Your task to perform on an android device: make emails show in primary in the gmail app Image 0: 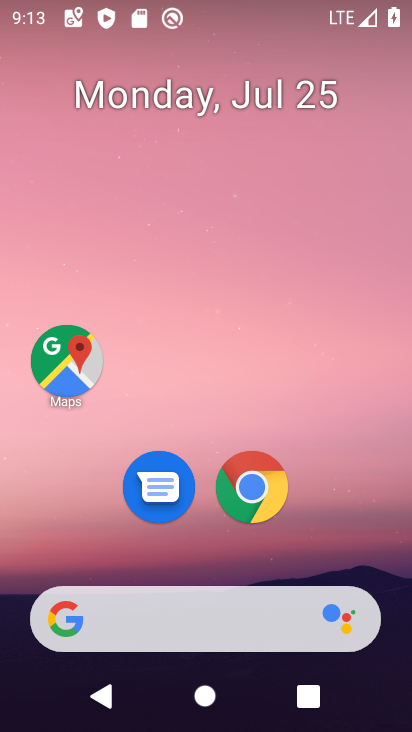
Step 0: drag from (104, 588) to (202, 16)
Your task to perform on an android device: make emails show in primary in the gmail app Image 1: 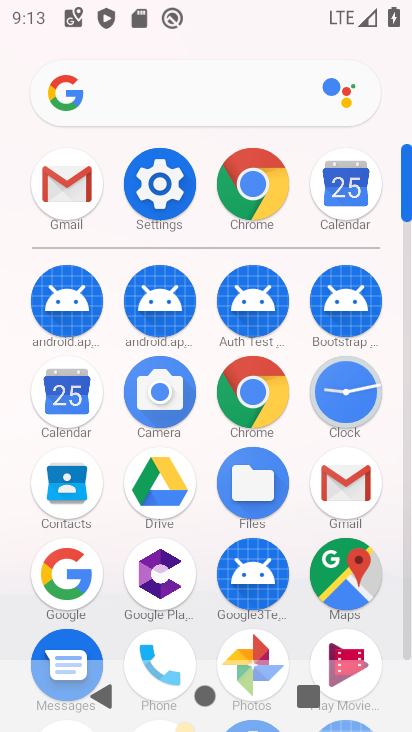
Step 1: click (71, 188)
Your task to perform on an android device: make emails show in primary in the gmail app Image 2: 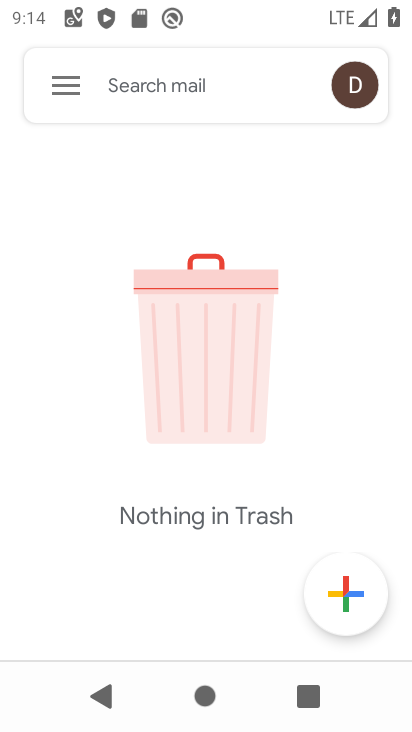
Step 2: click (72, 83)
Your task to perform on an android device: make emails show in primary in the gmail app Image 3: 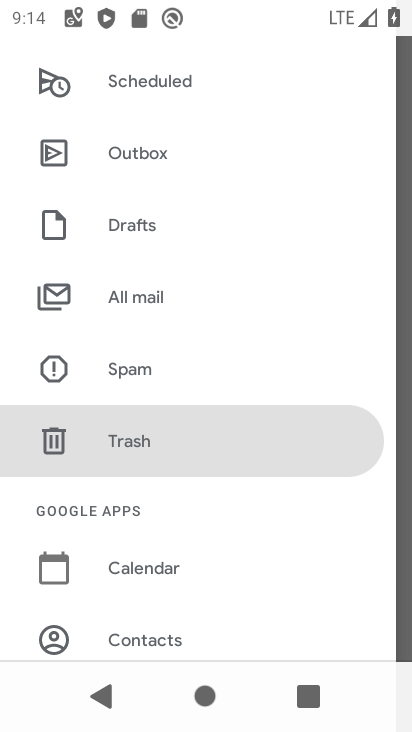
Step 3: drag from (197, 625) to (319, 6)
Your task to perform on an android device: make emails show in primary in the gmail app Image 4: 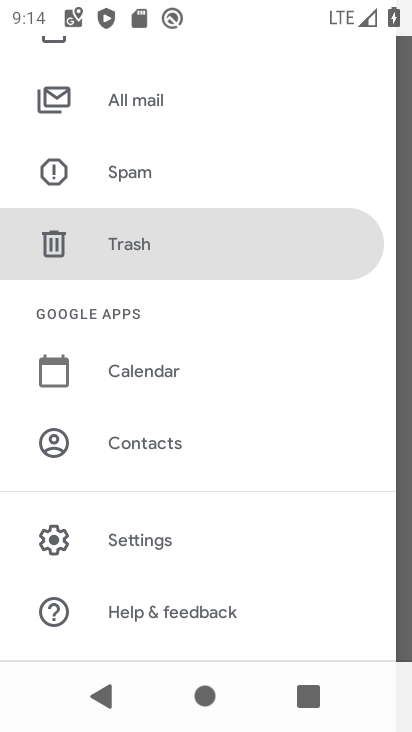
Step 4: click (126, 556)
Your task to perform on an android device: make emails show in primary in the gmail app Image 5: 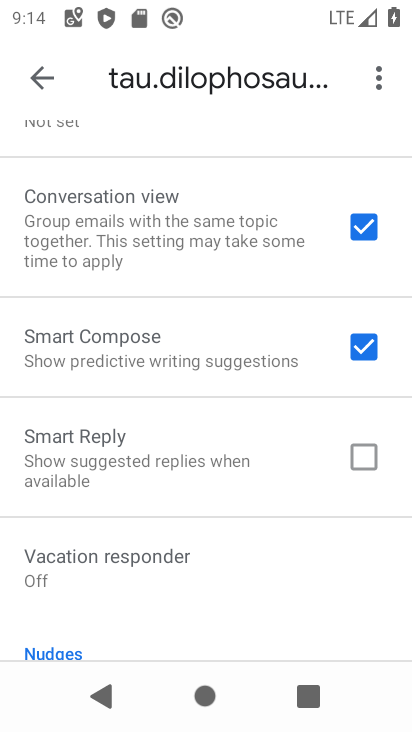
Step 5: task complete